Your task to perform on an android device: Search for sushi restaurants on Maps Image 0: 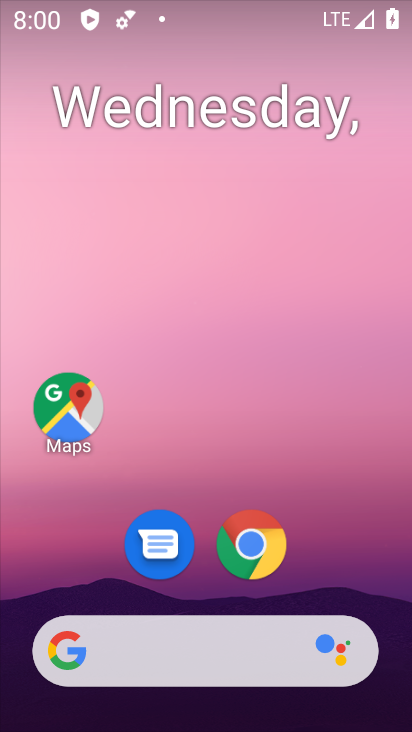
Step 0: drag from (307, 476) to (268, 16)
Your task to perform on an android device: Search for sushi restaurants on Maps Image 1: 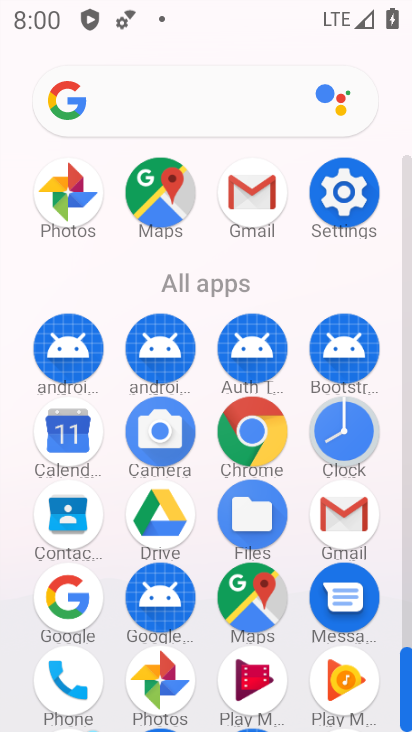
Step 1: drag from (5, 500) to (14, 195)
Your task to perform on an android device: Search for sushi restaurants on Maps Image 2: 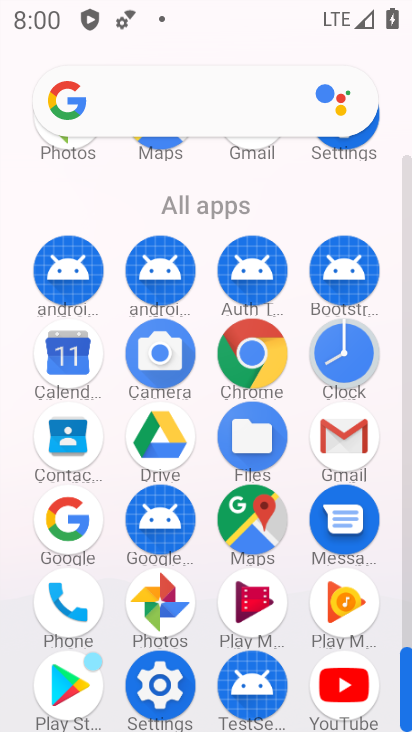
Step 2: click (248, 520)
Your task to perform on an android device: Search for sushi restaurants on Maps Image 3: 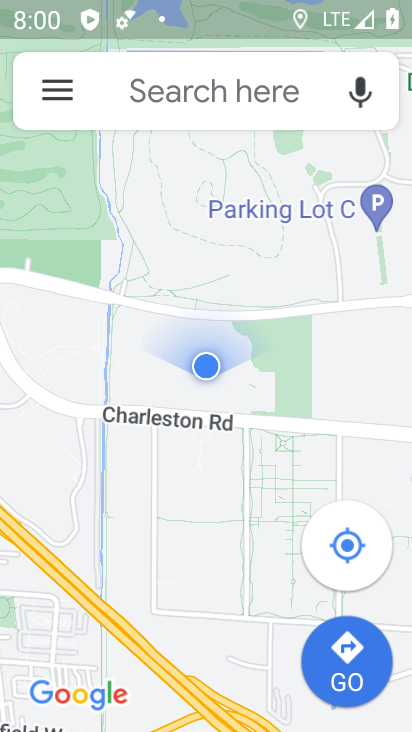
Step 3: click (133, 89)
Your task to perform on an android device: Search for sushi restaurants on Maps Image 4: 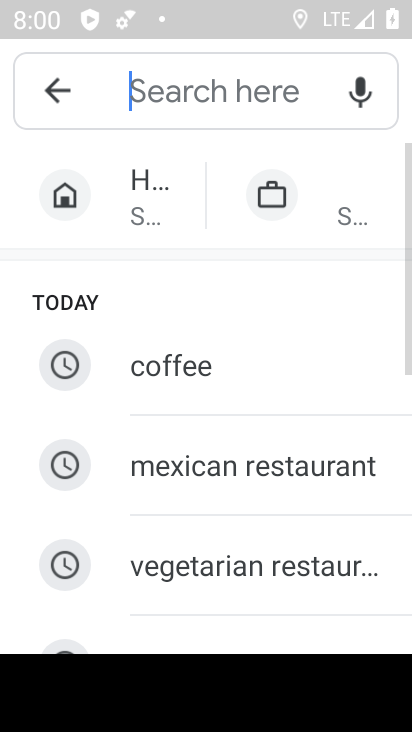
Step 4: drag from (280, 476) to (276, 289)
Your task to perform on an android device: Search for sushi restaurants on Maps Image 5: 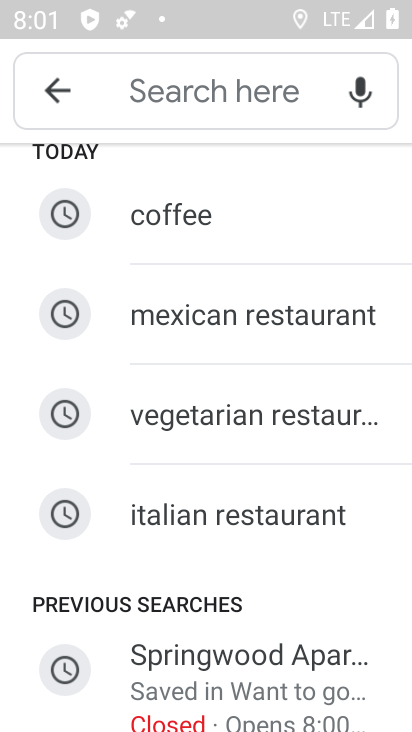
Step 5: click (147, 88)
Your task to perform on an android device: Search for sushi restaurants on Maps Image 6: 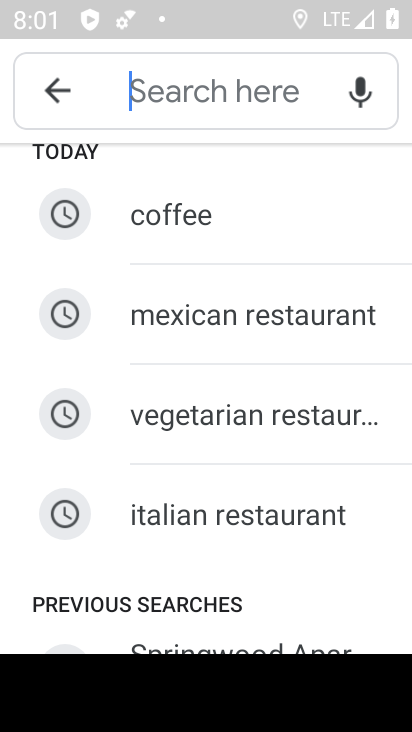
Step 6: type "sushi restaurants"
Your task to perform on an android device: Search for sushi restaurants on Maps Image 7: 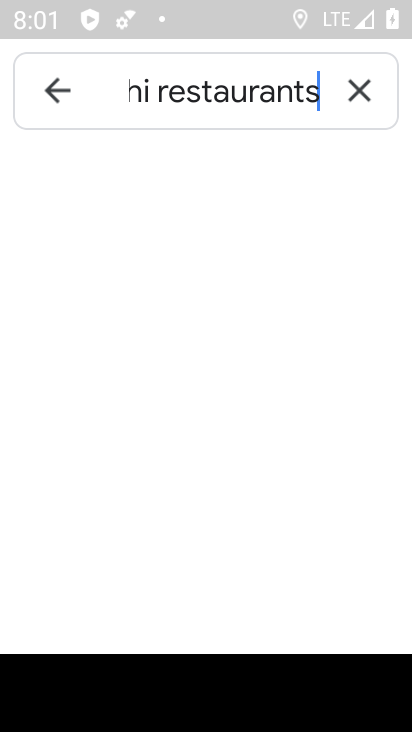
Step 7: type ""
Your task to perform on an android device: Search for sushi restaurants on Maps Image 8: 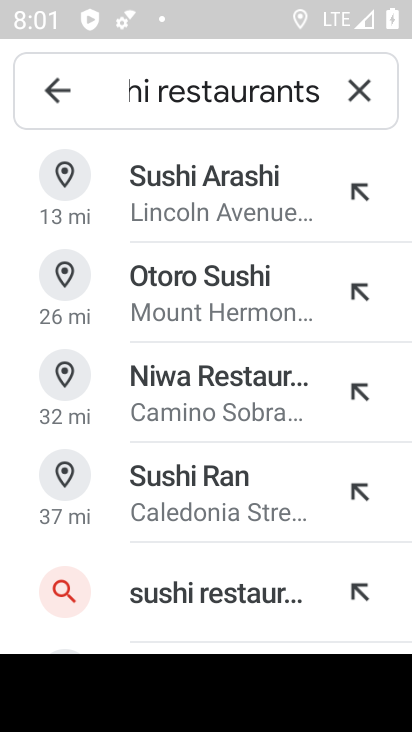
Step 8: click (229, 569)
Your task to perform on an android device: Search for sushi restaurants on Maps Image 9: 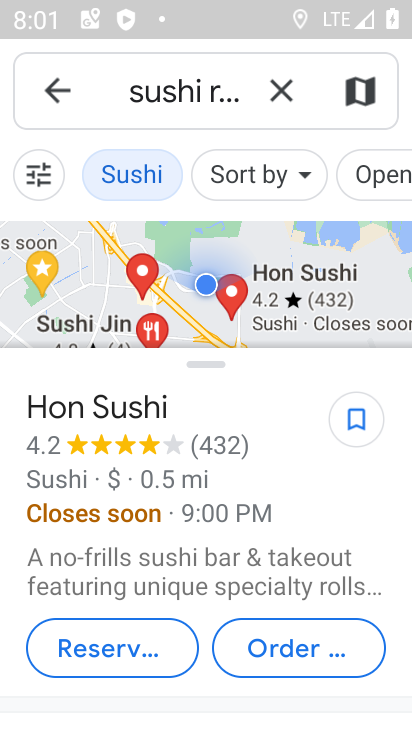
Step 9: task complete